Your task to perform on an android device: turn on airplane mode Image 0: 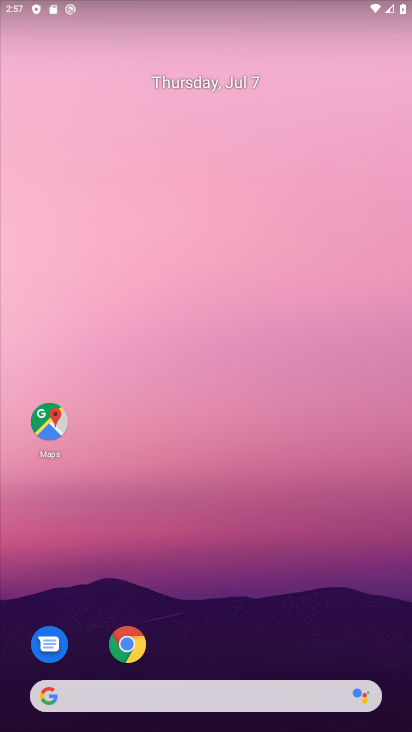
Step 0: drag from (267, 583) to (220, 122)
Your task to perform on an android device: turn on airplane mode Image 1: 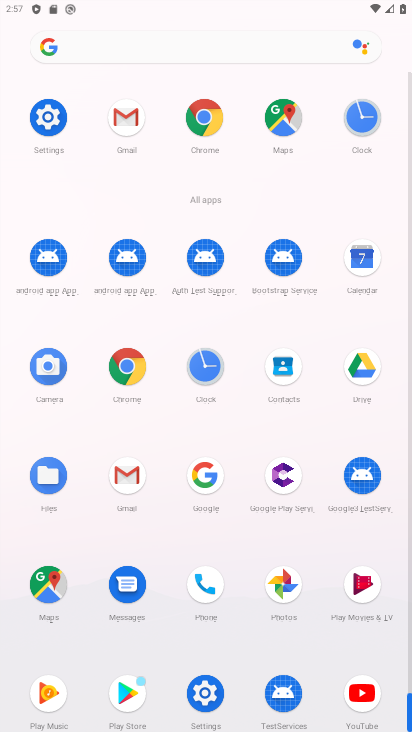
Step 1: click (49, 116)
Your task to perform on an android device: turn on airplane mode Image 2: 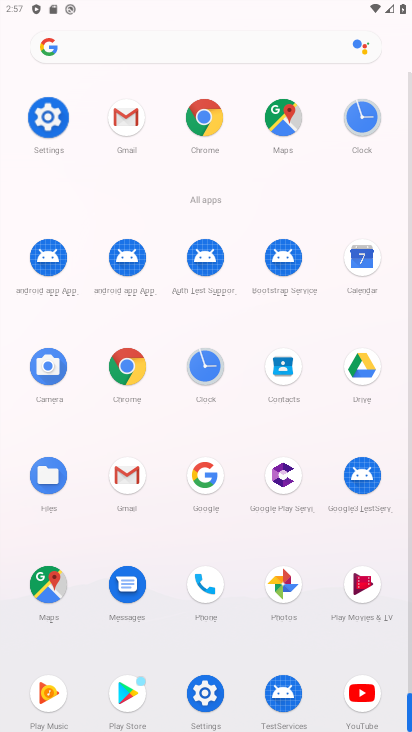
Step 2: click (50, 115)
Your task to perform on an android device: turn on airplane mode Image 3: 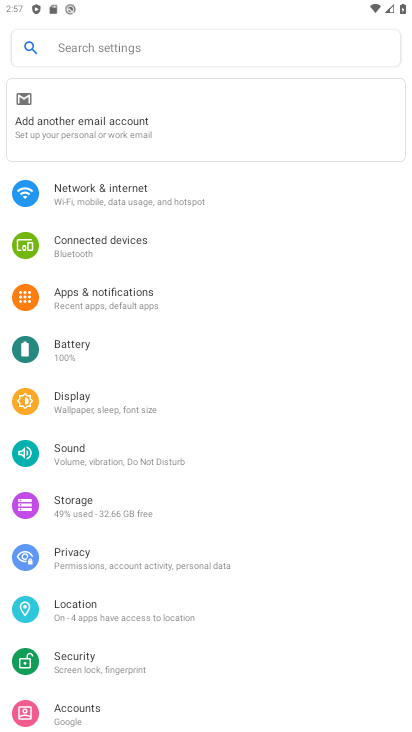
Step 3: click (104, 192)
Your task to perform on an android device: turn on airplane mode Image 4: 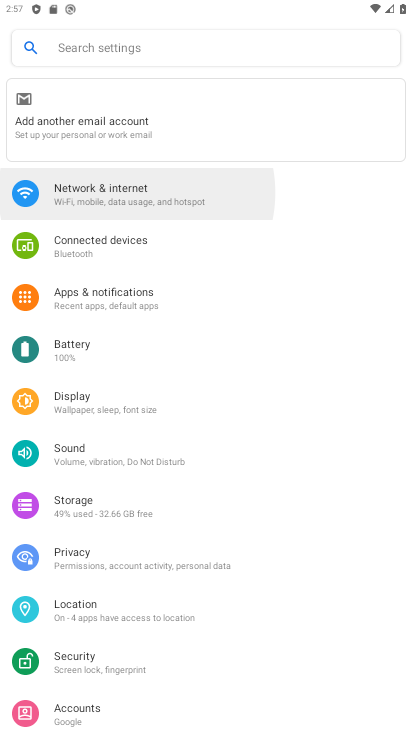
Step 4: click (104, 193)
Your task to perform on an android device: turn on airplane mode Image 5: 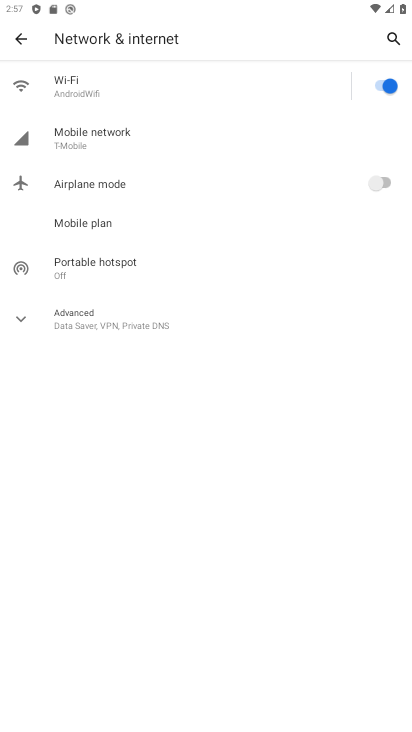
Step 5: click (373, 183)
Your task to perform on an android device: turn on airplane mode Image 6: 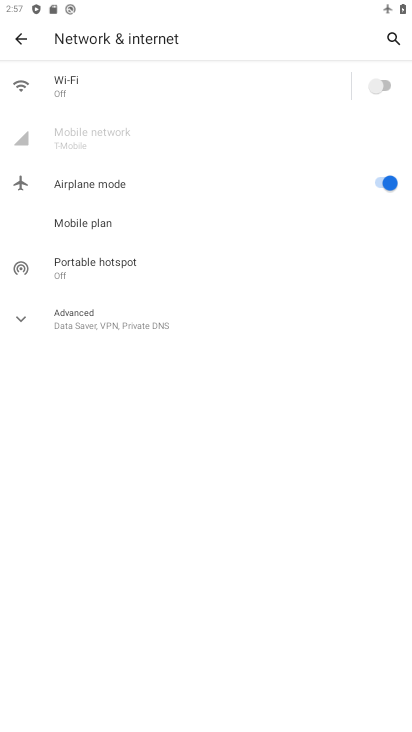
Step 6: task complete